Your task to perform on an android device: turn vacation reply on in the gmail app Image 0: 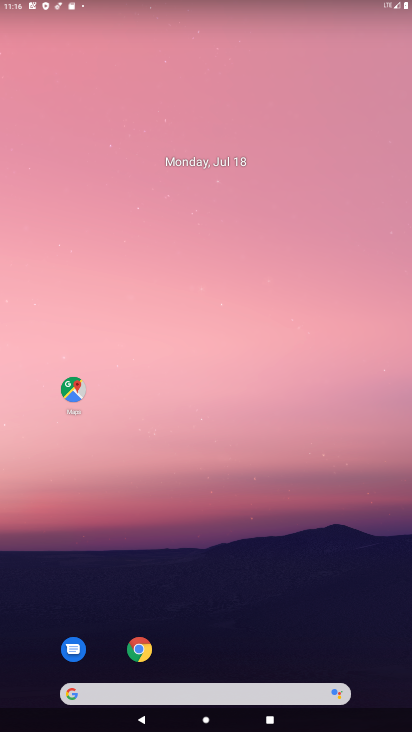
Step 0: drag from (139, 491) to (215, 122)
Your task to perform on an android device: turn vacation reply on in the gmail app Image 1: 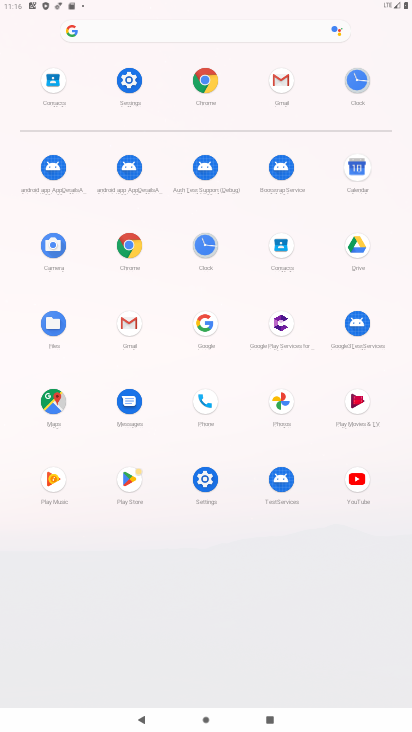
Step 1: click (285, 83)
Your task to perform on an android device: turn vacation reply on in the gmail app Image 2: 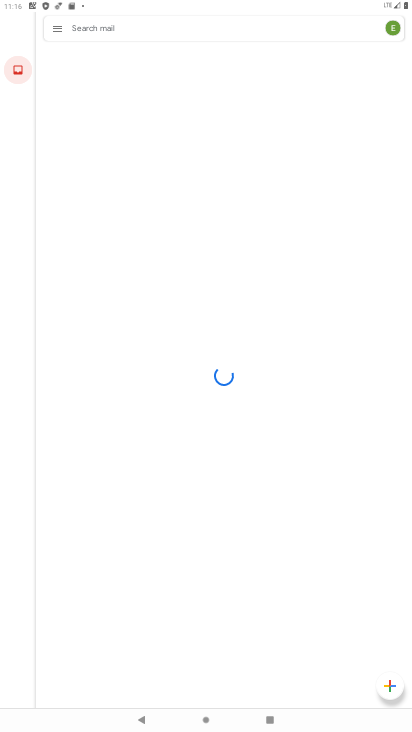
Step 2: click (57, 28)
Your task to perform on an android device: turn vacation reply on in the gmail app Image 3: 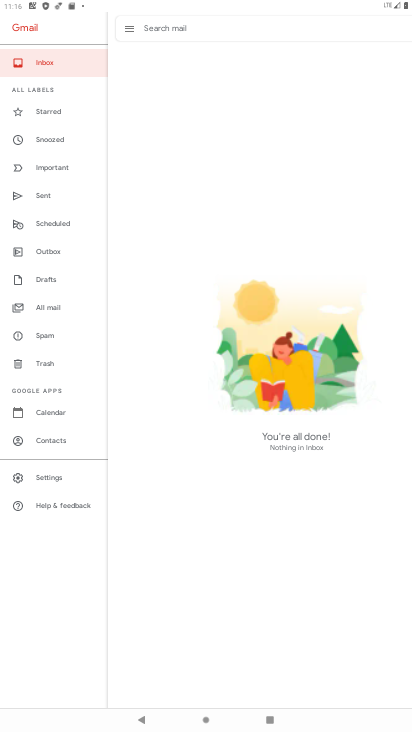
Step 3: click (73, 480)
Your task to perform on an android device: turn vacation reply on in the gmail app Image 4: 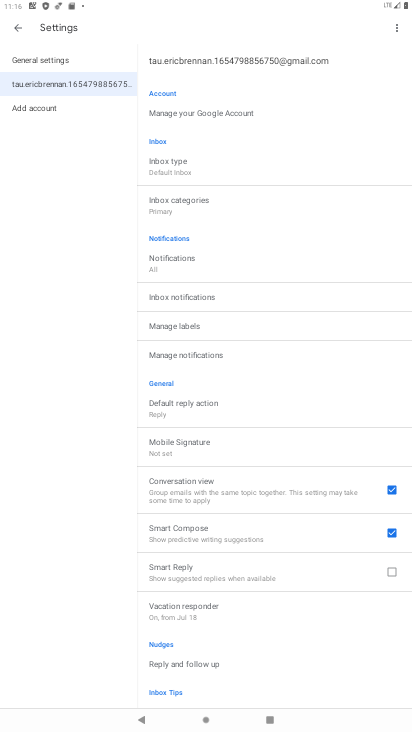
Step 4: click (232, 609)
Your task to perform on an android device: turn vacation reply on in the gmail app Image 5: 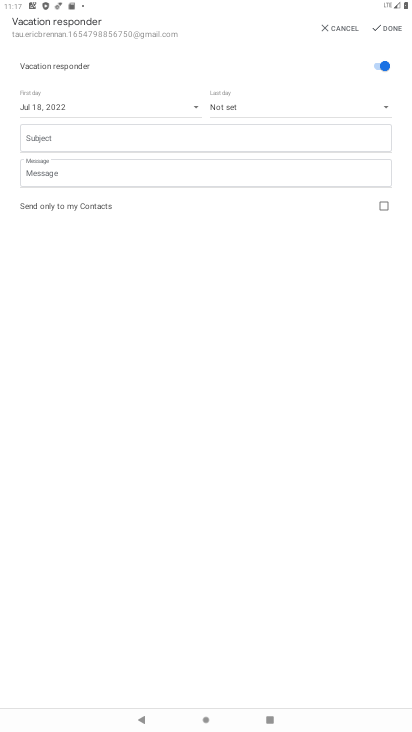
Step 5: click (373, 25)
Your task to perform on an android device: turn vacation reply on in the gmail app Image 6: 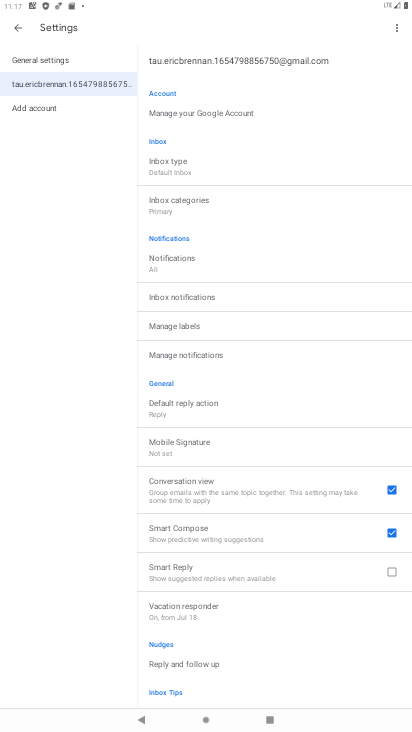
Step 6: click (269, 604)
Your task to perform on an android device: turn vacation reply on in the gmail app Image 7: 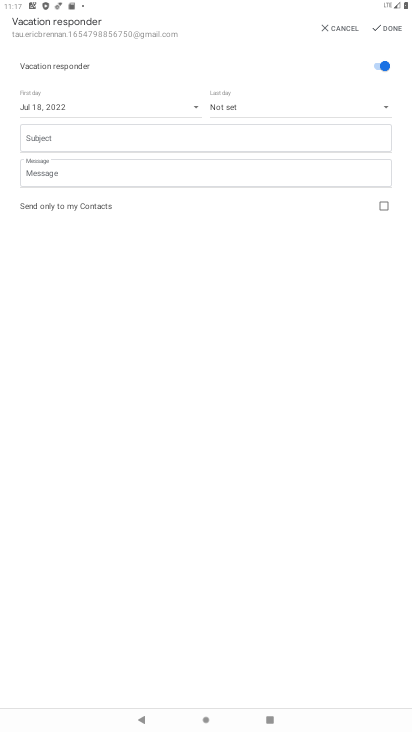
Step 7: click (384, 25)
Your task to perform on an android device: turn vacation reply on in the gmail app Image 8: 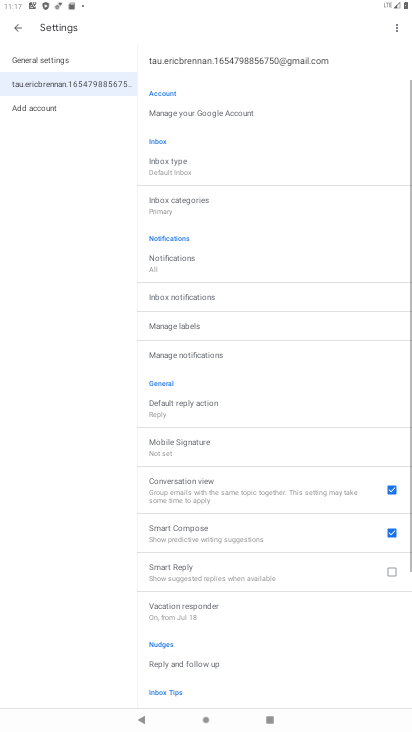
Step 8: task complete